Your task to perform on an android device: Open Amazon Image 0: 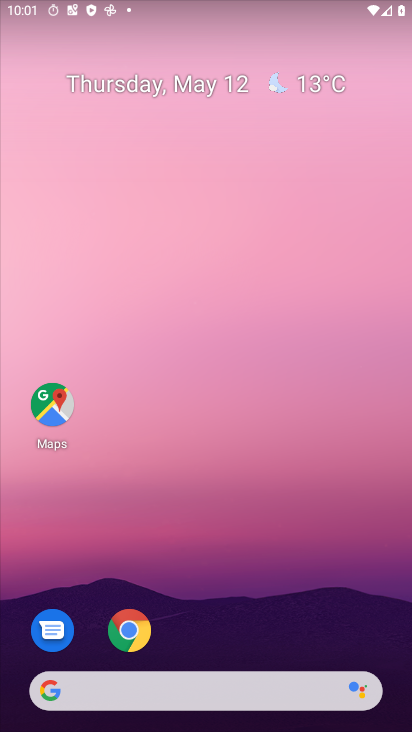
Step 0: drag from (19, 301) to (379, 209)
Your task to perform on an android device: Open Amazon Image 1: 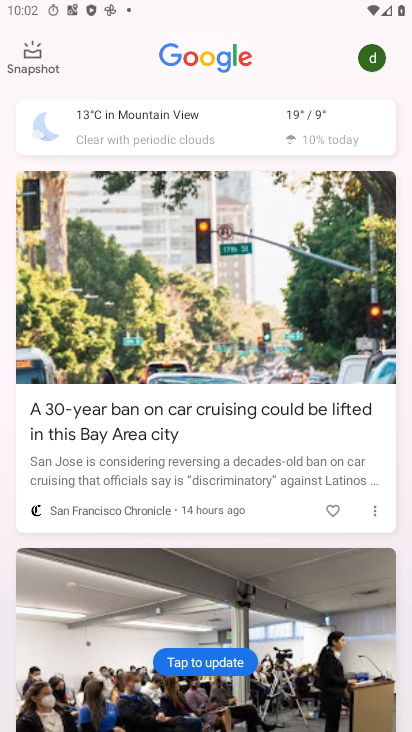
Step 1: press home button
Your task to perform on an android device: Open Amazon Image 2: 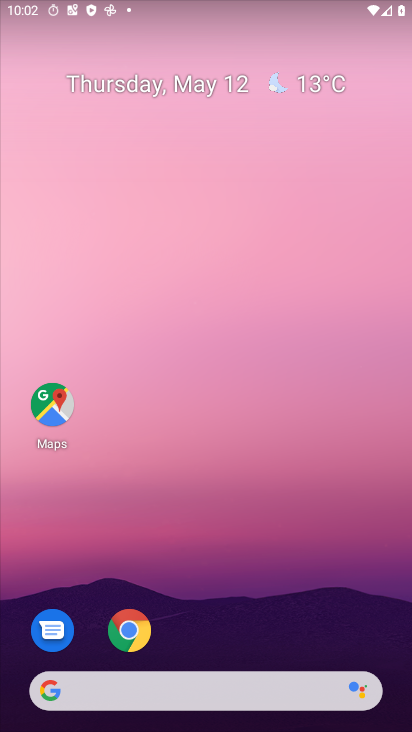
Step 2: drag from (208, 697) to (160, 211)
Your task to perform on an android device: Open Amazon Image 3: 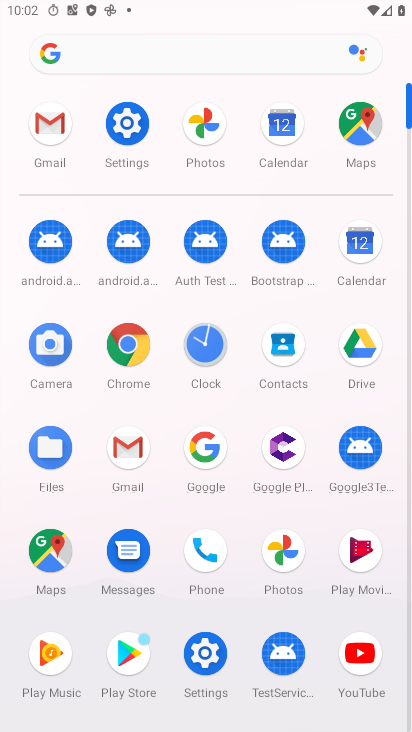
Step 3: click (125, 358)
Your task to perform on an android device: Open Amazon Image 4: 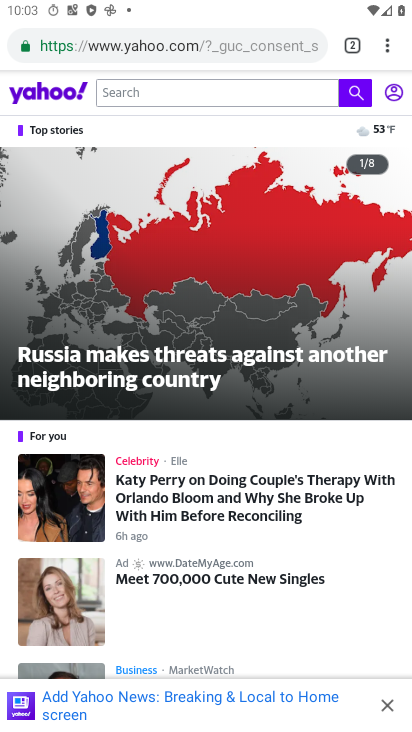
Step 4: click (258, 42)
Your task to perform on an android device: Open Amazon Image 5: 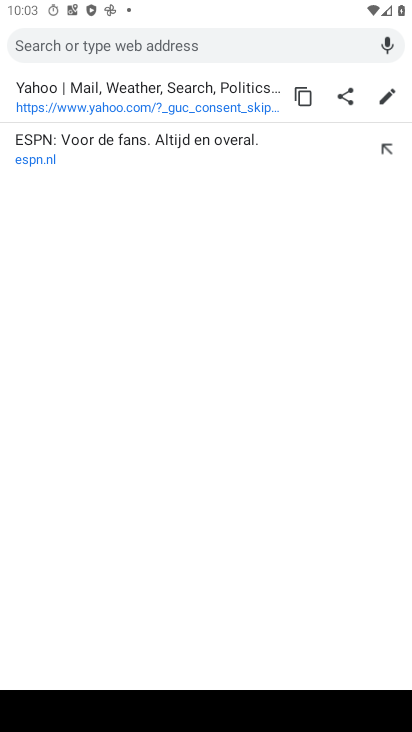
Step 5: type "amazon"
Your task to perform on an android device: Open Amazon Image 6: 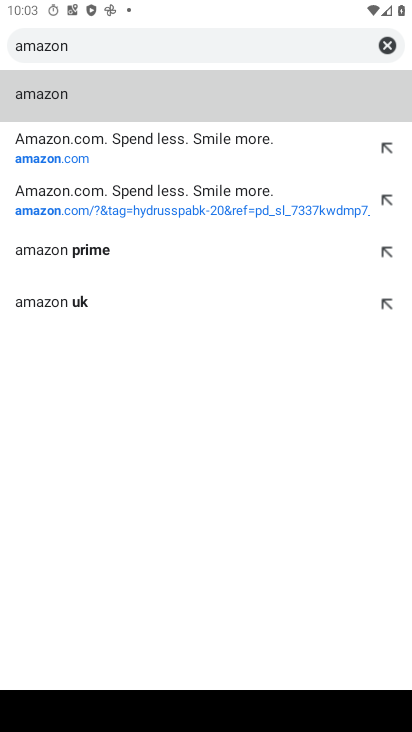
Step 6: click (61, 160)
Your task to perform on an android device: Open Amazon Image 7: 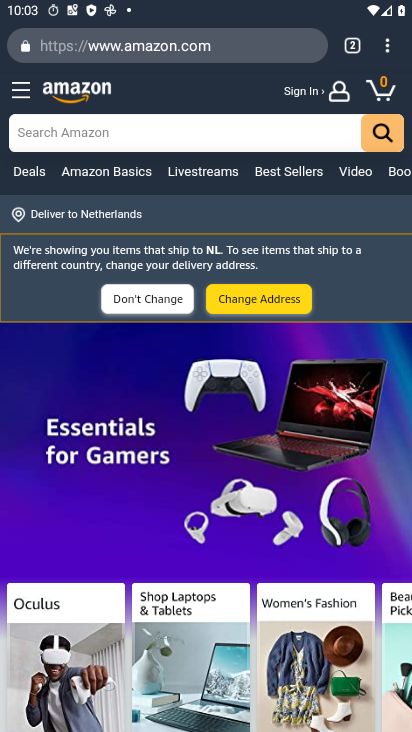
Step 7: task complete